Your task to perform on an android device: turn vacation reply on in the gmail app Image 0: 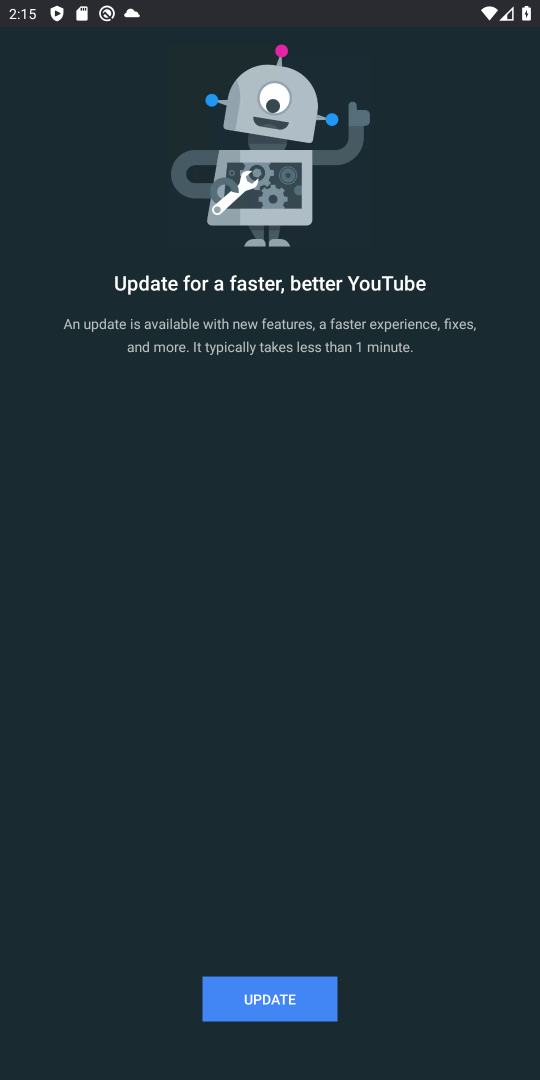
Step 0: press home button
Your task to perform on an android device: turn vacation reply on in the gmail app Image 1: 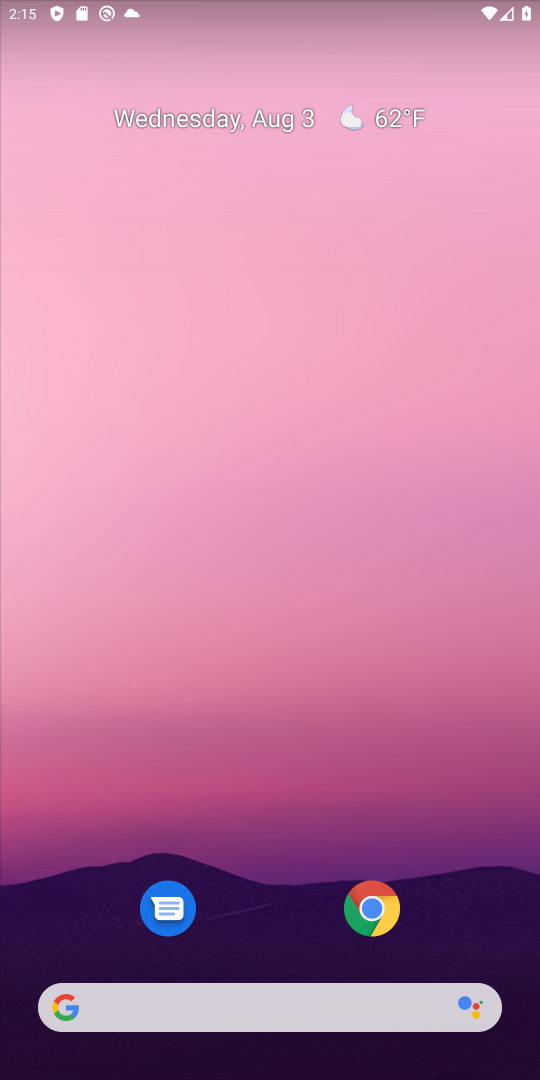
Step 1: drag from (236, 545) to (237, 268)
Your task to perform on an android device: turn vacation reply on in the gmail app Image 2: 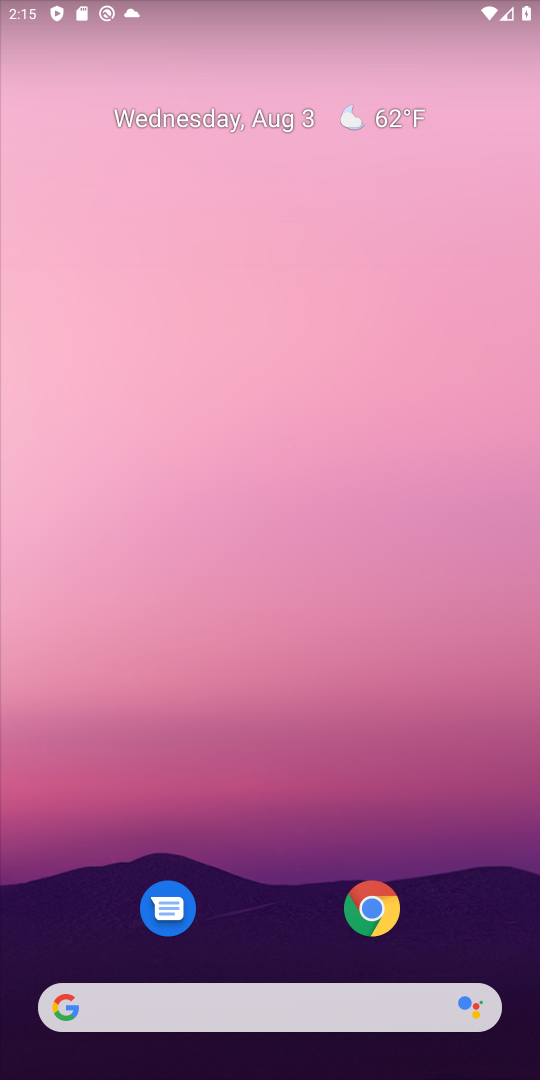
Step 2: drag from (297, 826) to (446, 279)
Your task to perform on an android device: turn vacation reply on in the gmail app Image 3: 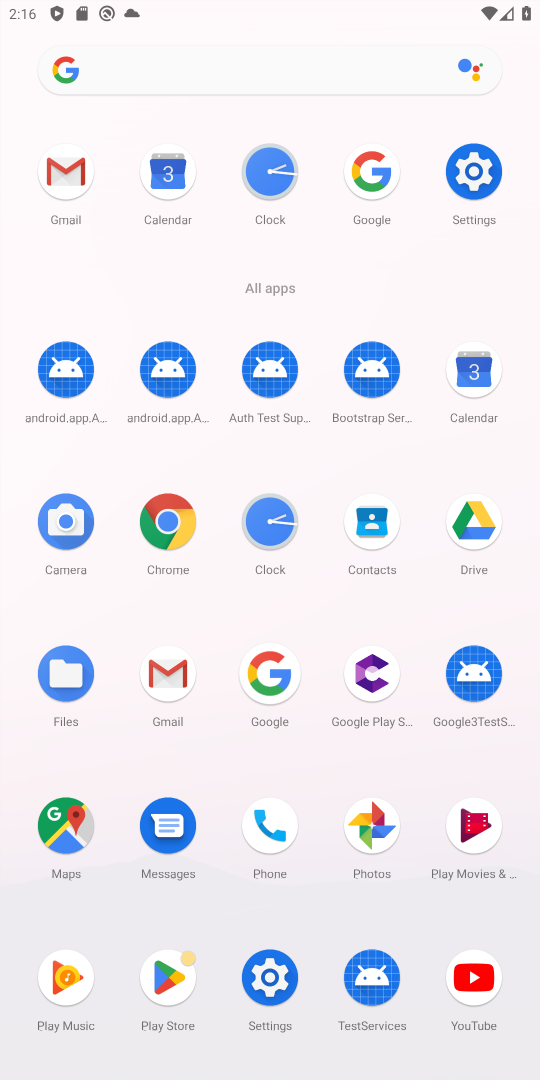
Step 3: click (182, 668)
Your task to perform on an android device: turn vacation reply on in the gmail app Image 4: 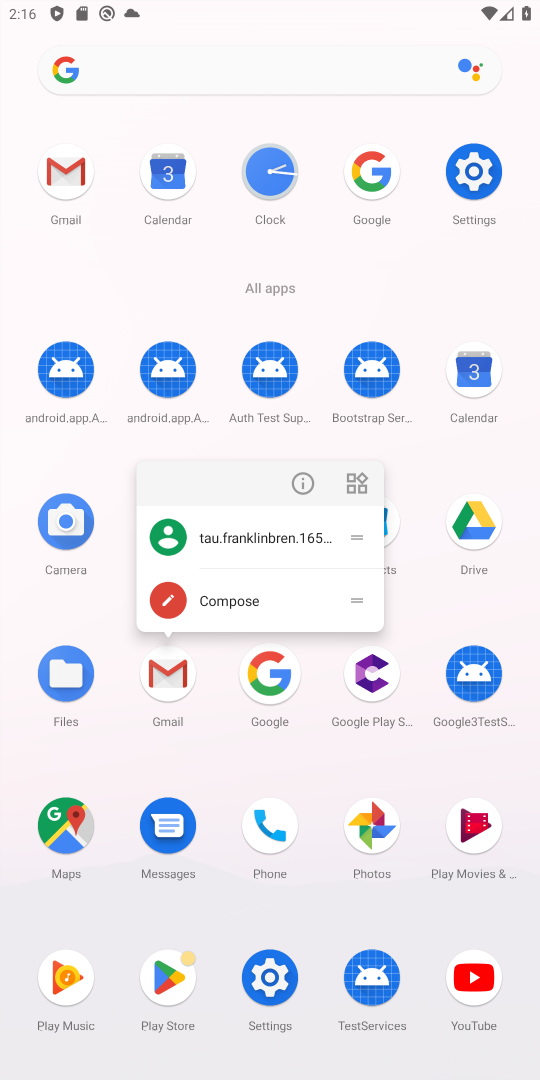
Step 4: click (182, 668)
Your task to perform on an android device: turn vacation reply on in the gmail app Image 5: 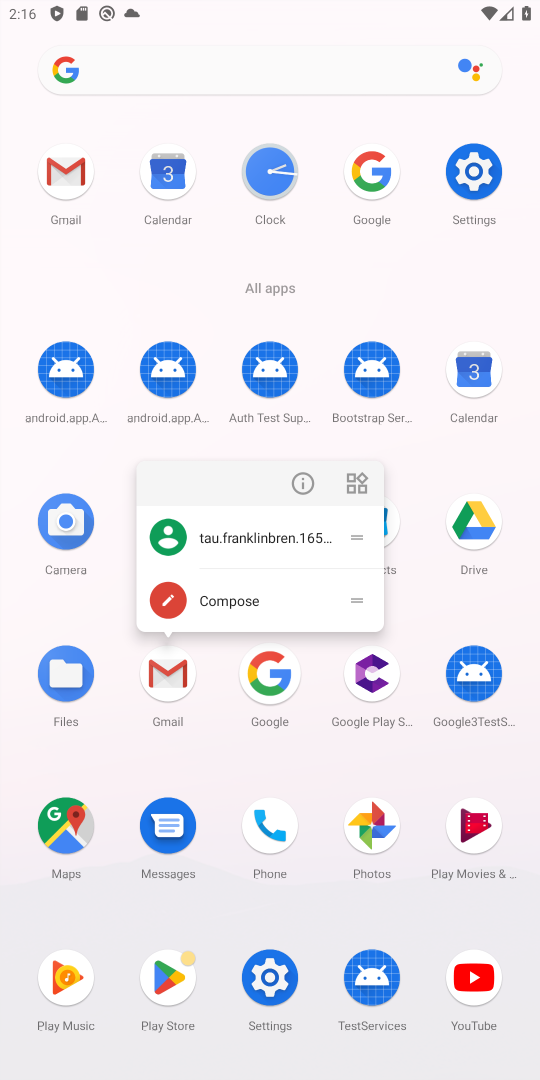
Step 5: click (167, 702)
Your task to perform on an android device: turn vacation reply on in the gmail app Image 6: 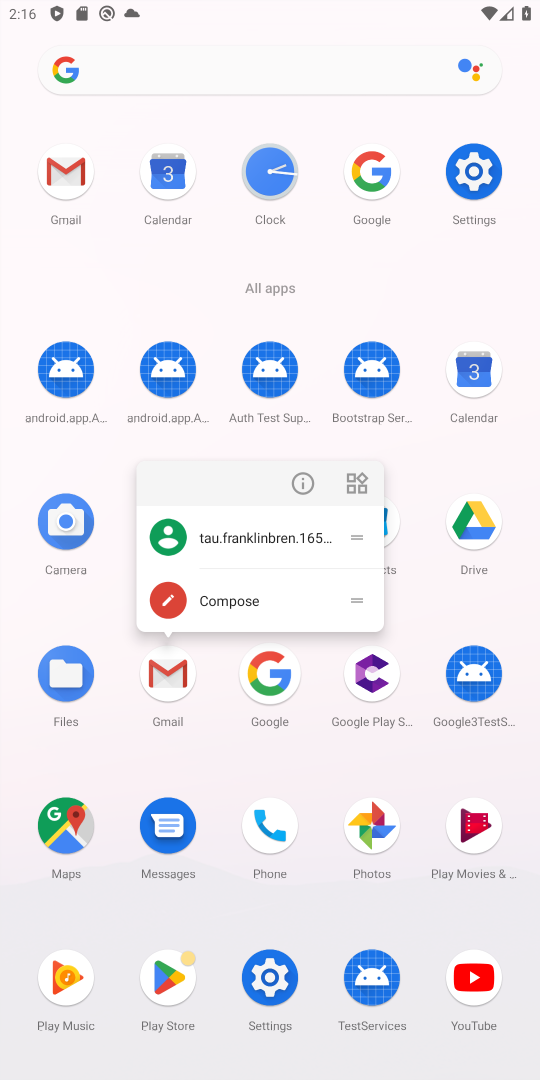
Step 6: click (167, 702)
Your task to perform on an android device: turn vacation reply on in the gmail app Image 7: 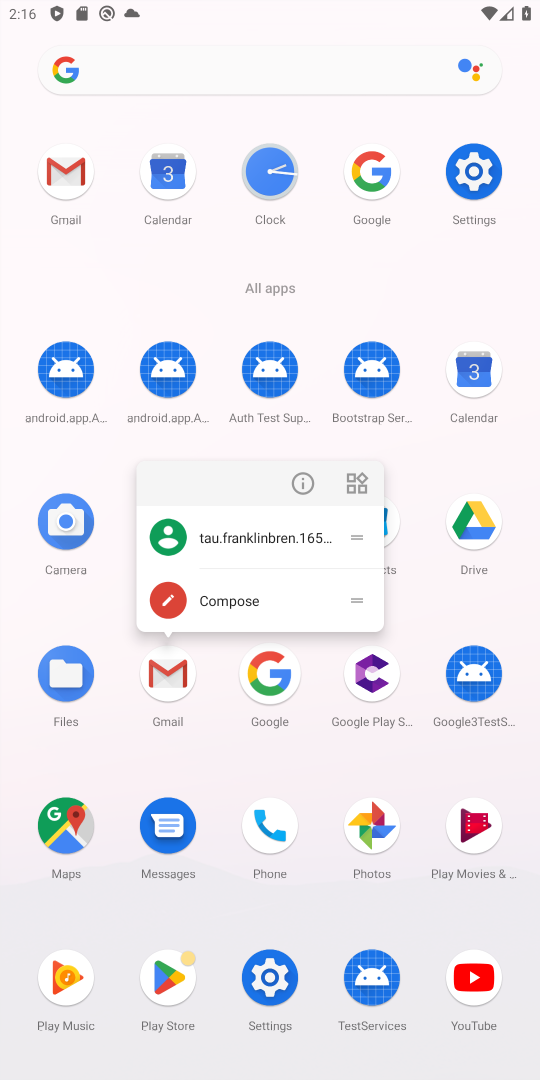
Step 7: click (167, 702)
Your task to perform on an android device: turn vacation reply on in the gmail app Image 8: 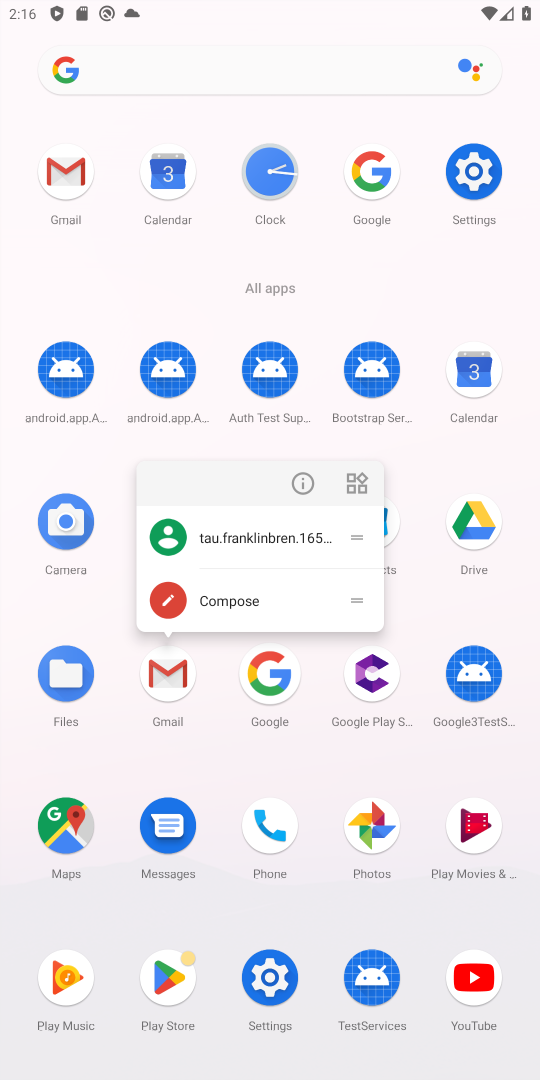
Step 8: click (79, 183)
Your task to perform on an android device: turn vacation reply on in the gmail app Image 9: 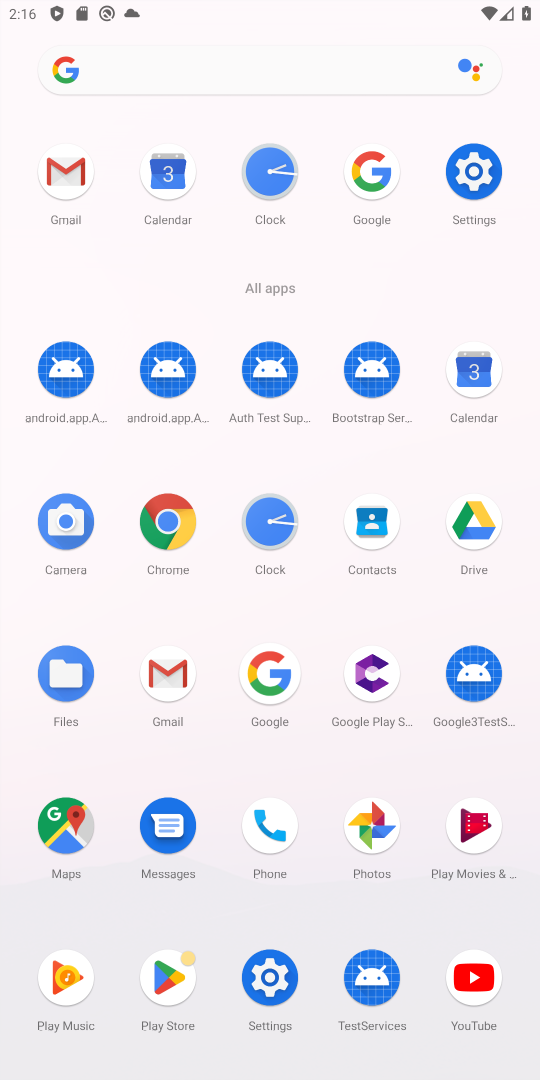
Step 9: click (79, 183)
Your task to perform on an android device: turn vacation reply on in the gmail app Image 10: 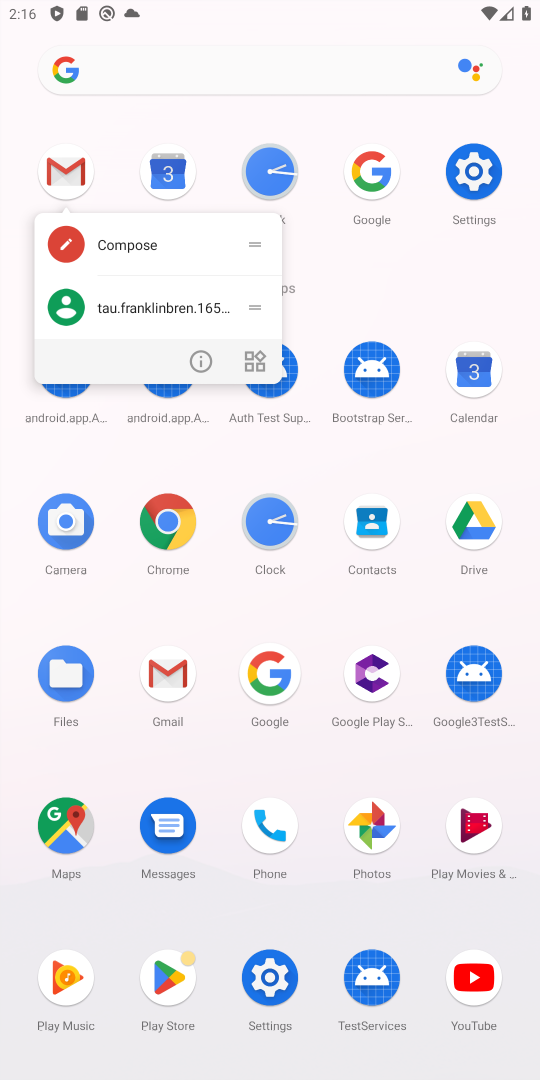
Step 10: click (79, 183)
Your task to perform on an android device: turn vacation reply on in the gmail app Image 11: 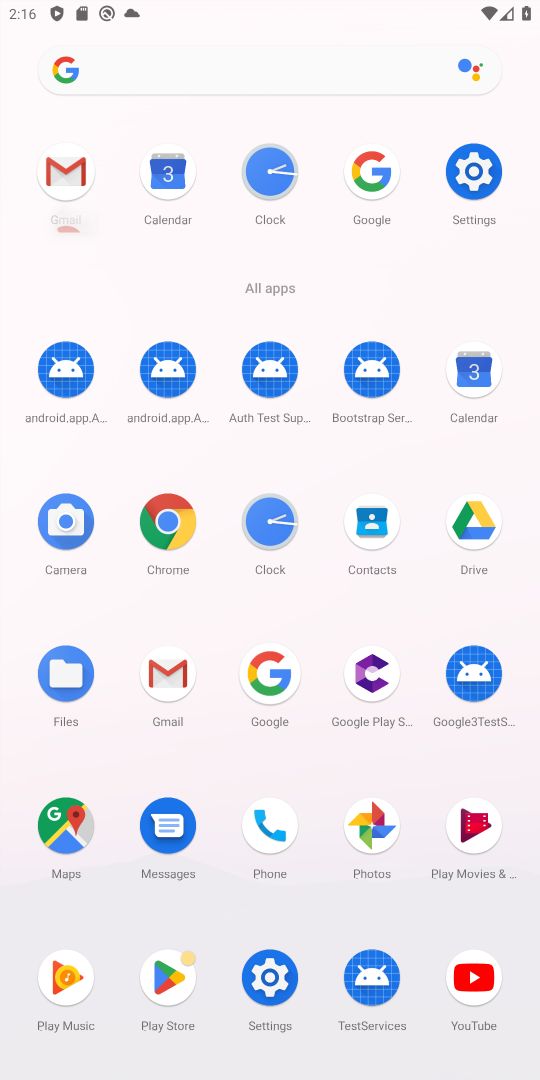
Step 11: click (77, 183)
Your task to perform on an android device: turn vacation reply on in the gmail app Image 12: 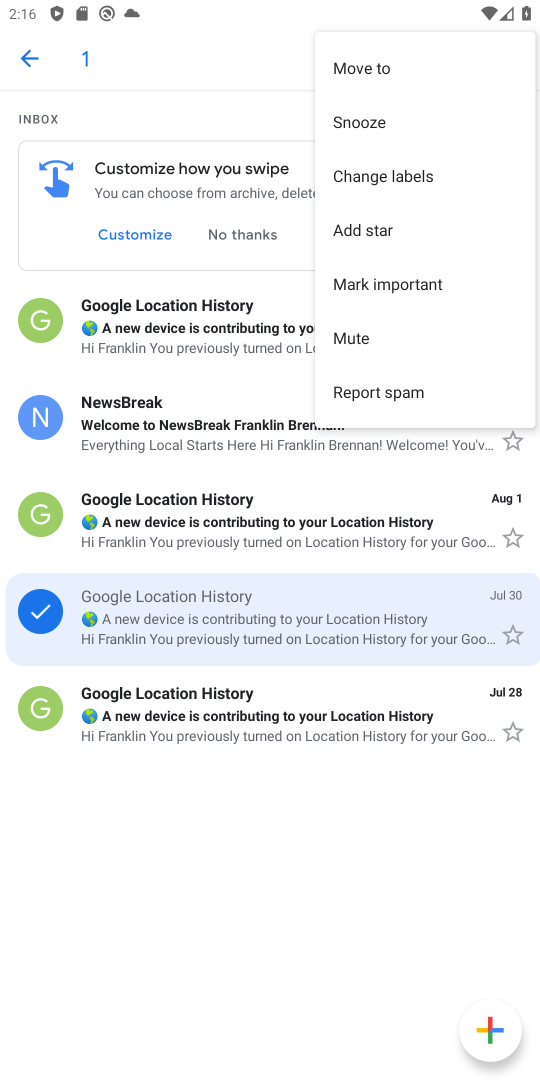
Step 12: click (20, 48)
Your task to perform on an android device: turn vacation reply on in the gmail app Image 13: 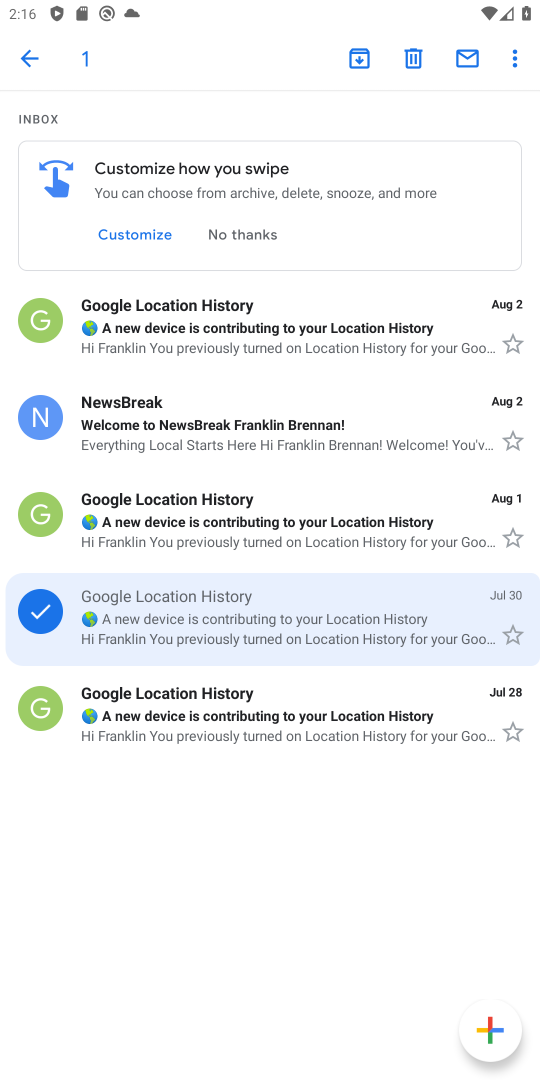
Step 13: click (28, 57)
Your task to perform on an android device: turn vacation reply on in the gmail app Image 14: 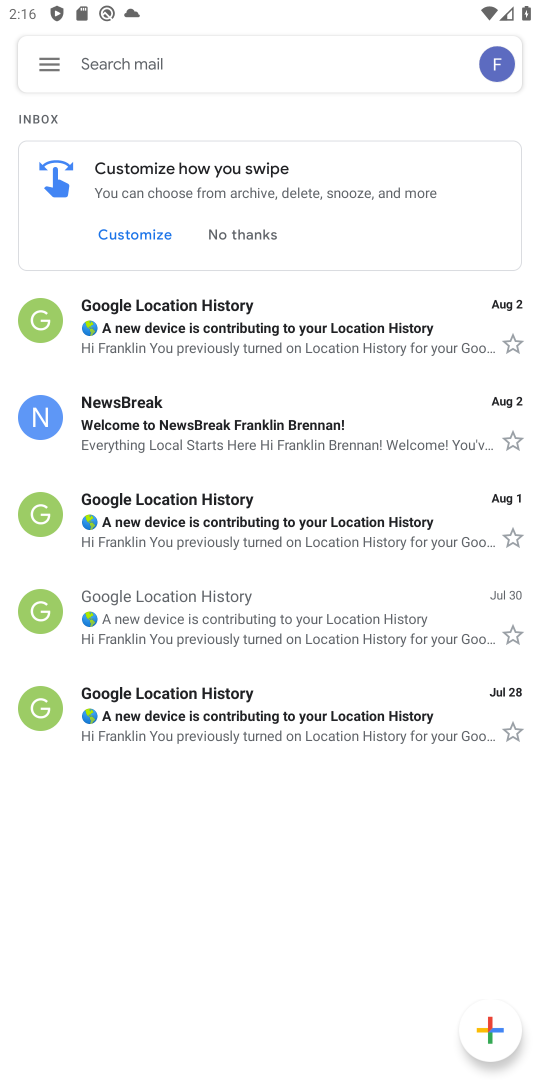
Step 14: click (50, 60)
Your task to perform on an android device: turn vacation reply on in the gmail app Image 15: 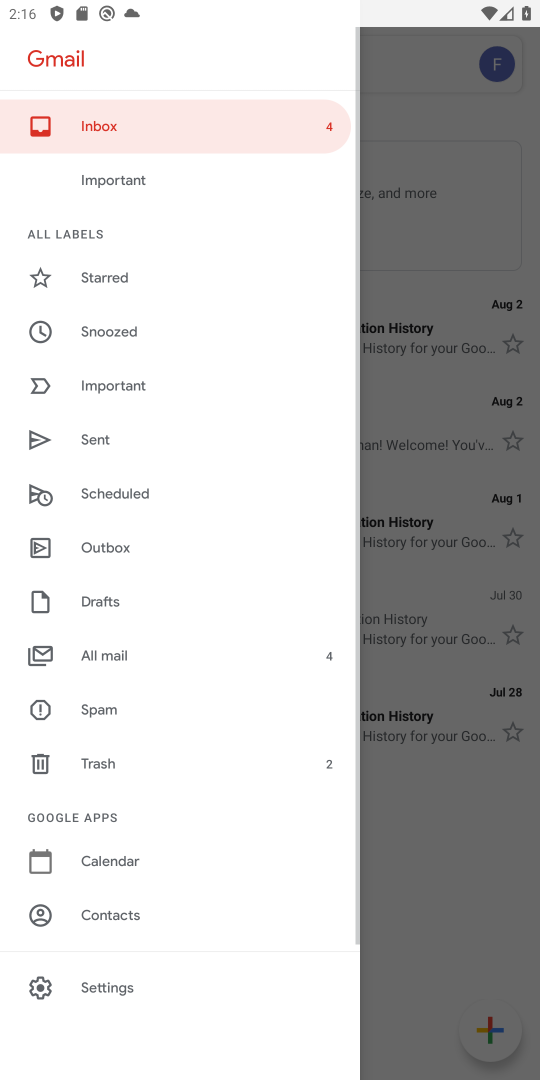
Step 15: click (155, 990)
Your task to perform on an android device: turn vacation reply on in the gmail app Image 16: 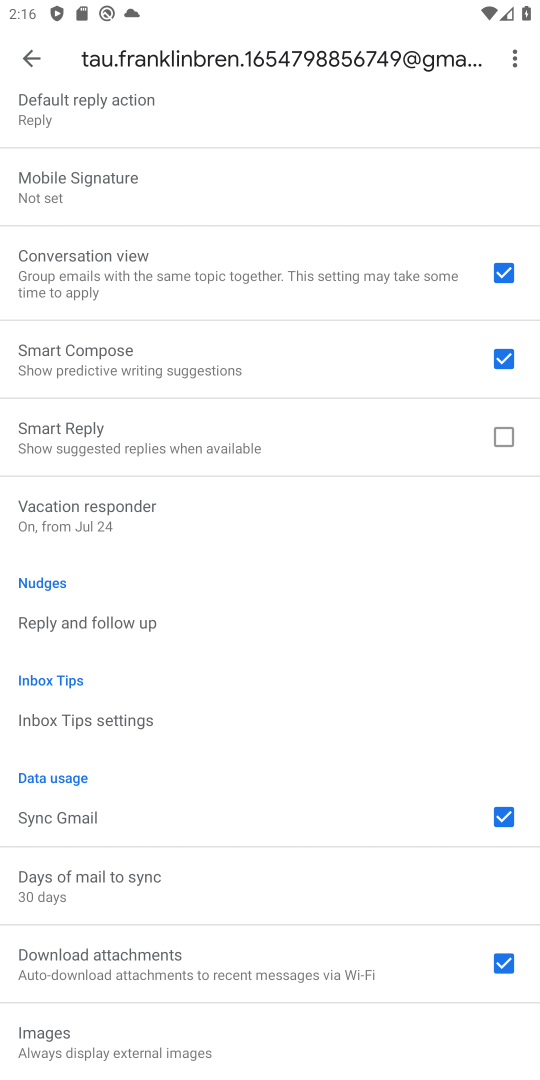
Step 16: click (148, 514)
Your task to perform on an android device: turn vacation reply on in the gmail app Image 17: 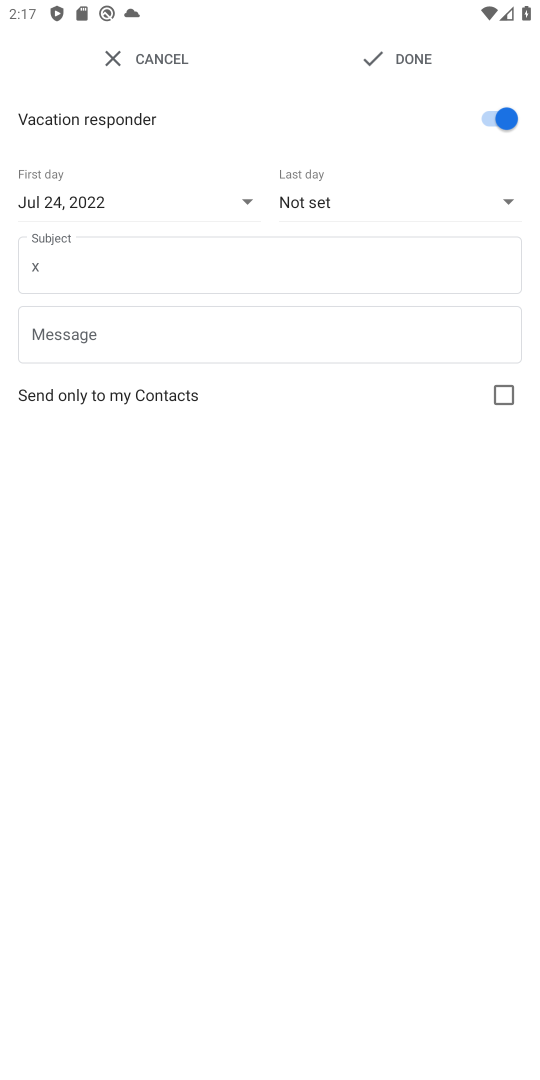
Step 17: click (406, 57)
Your task to perform on an android device: turn vacation reply on in the gmail app Image 18: 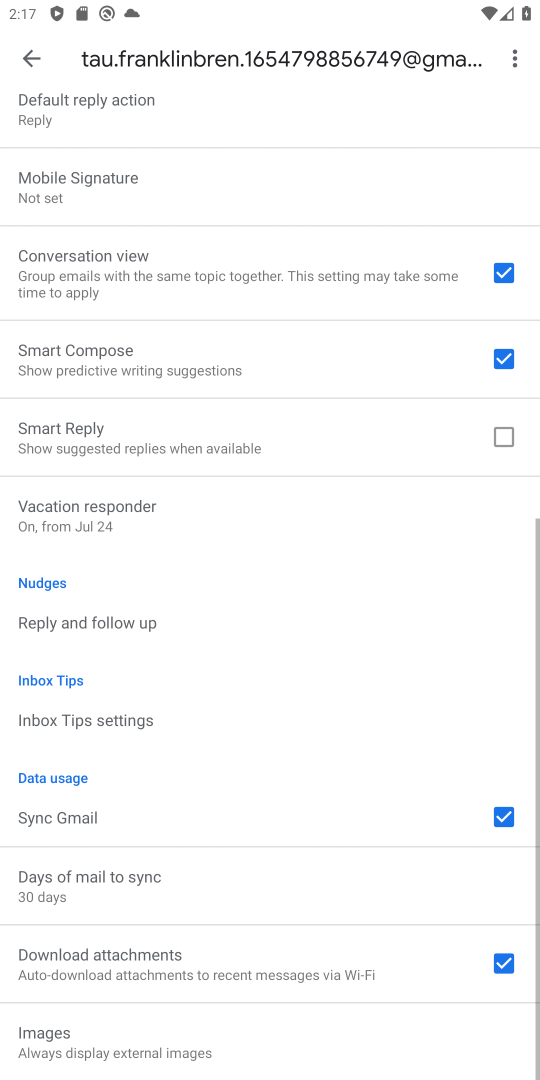
Step 18: task complete